Your task to perform on an android device: Show me productivity apps on the Play Store Image 0: 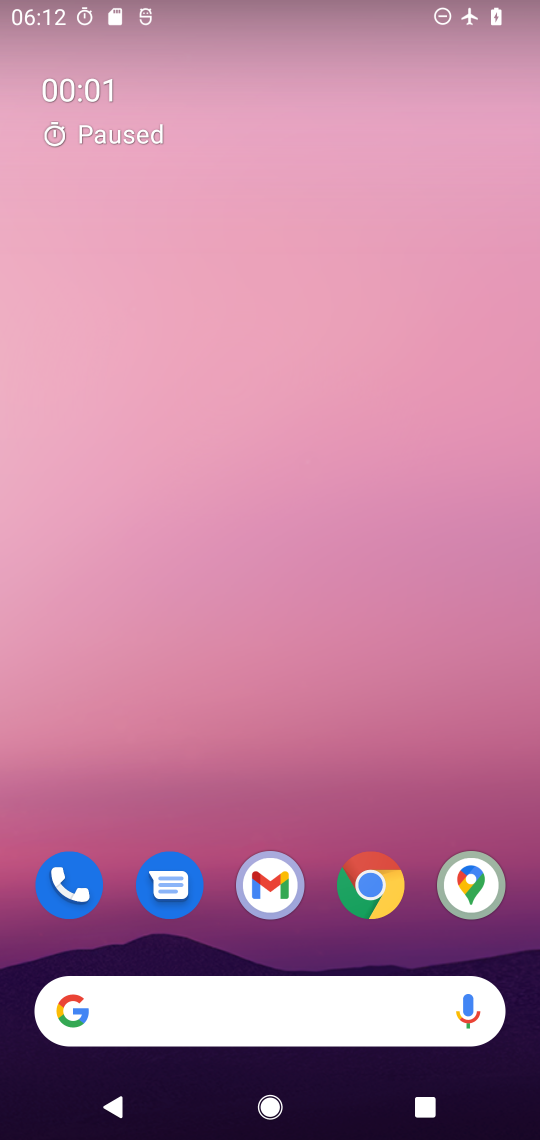
Step 0: drag from (289, 1027) to (328, 500)
Your task to perform on an android device: Show me productivity apps on the Play Store Image 1: 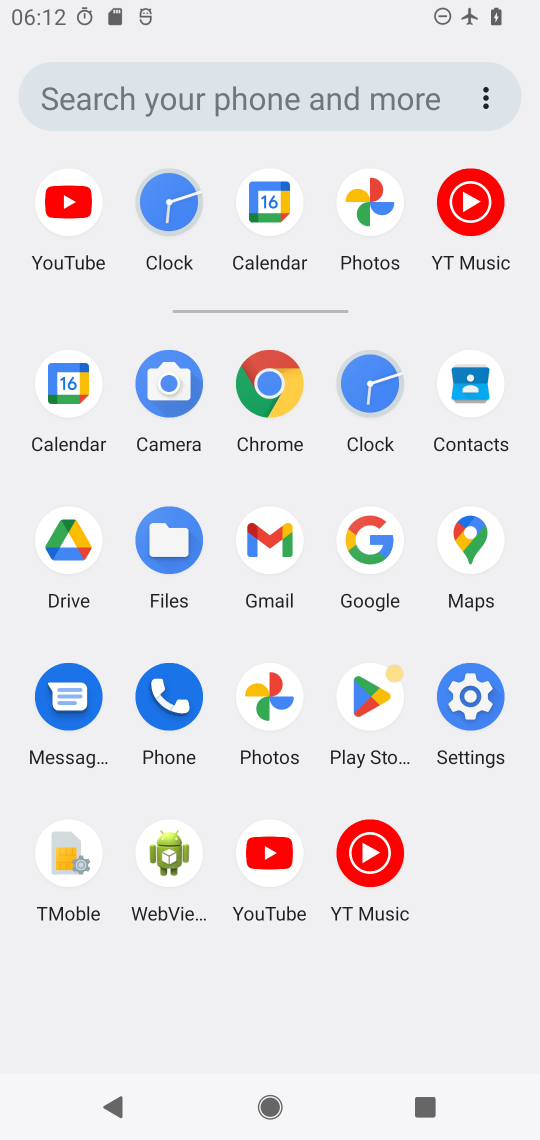
Step 1: click (369, 681)
Your task to perform on an android device: Show me productivity apps on the Play Store Image 2: 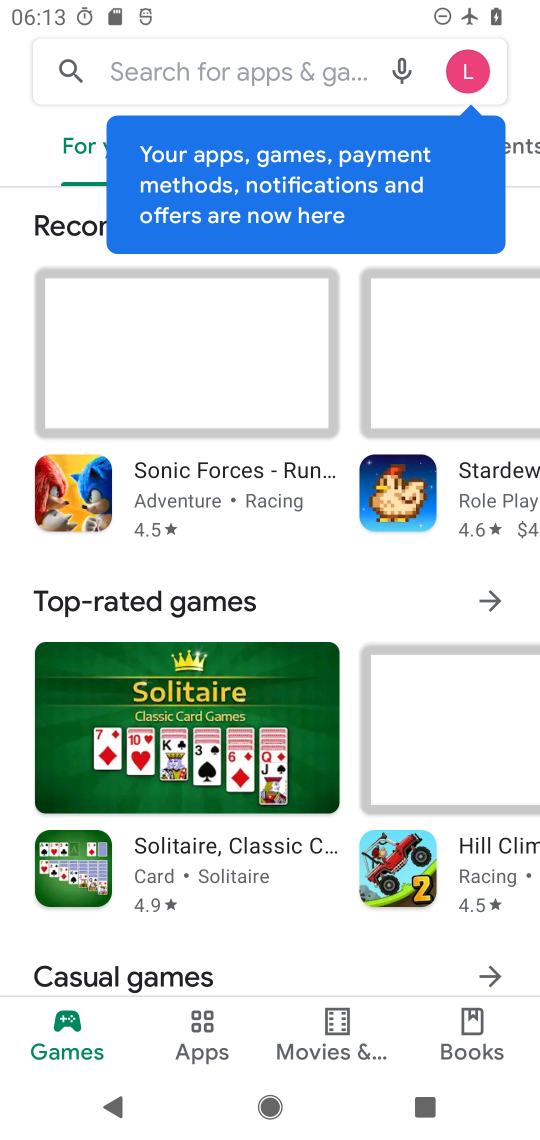
Step 2: click (179, 1034)
Your task to perform on an android device: Show me productivity apps on the Play Store Image 3: 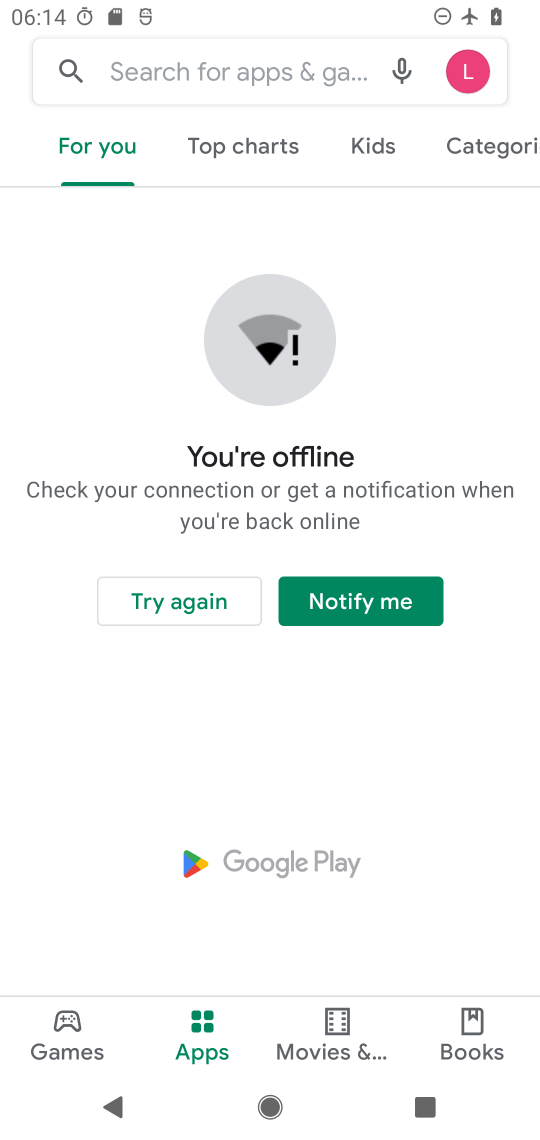
Step 3: task complete